Your task to perform on an android device: Go to notification settings Image 0: 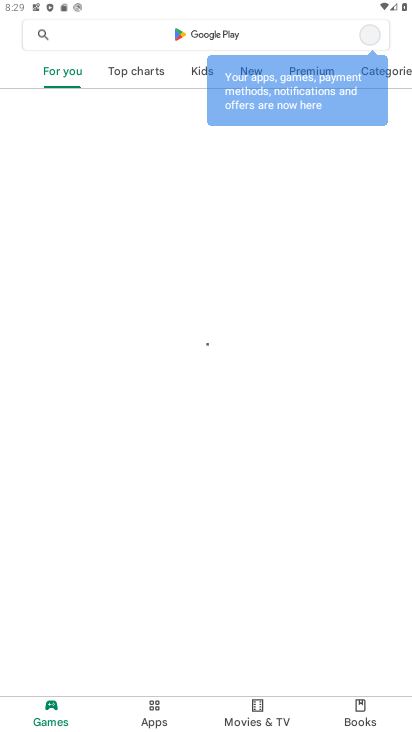
Step 0: press home button
Your task to perform on an android device: Go to notification settings Image 1: 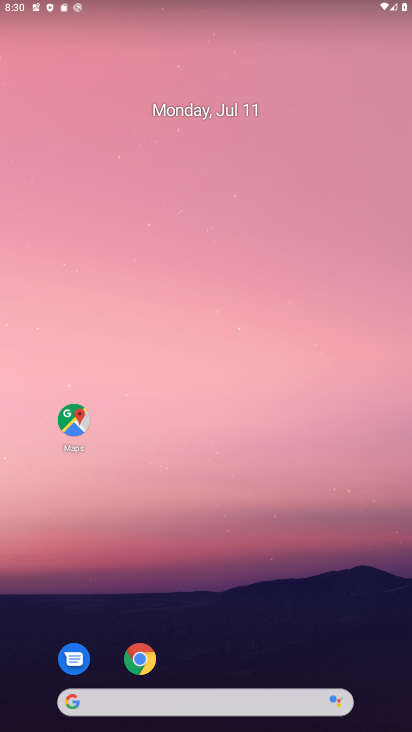
Step 1: drag from (222, 541) to (170, 145)
Your task to perform on an android device: Go to notification settings Image 2: 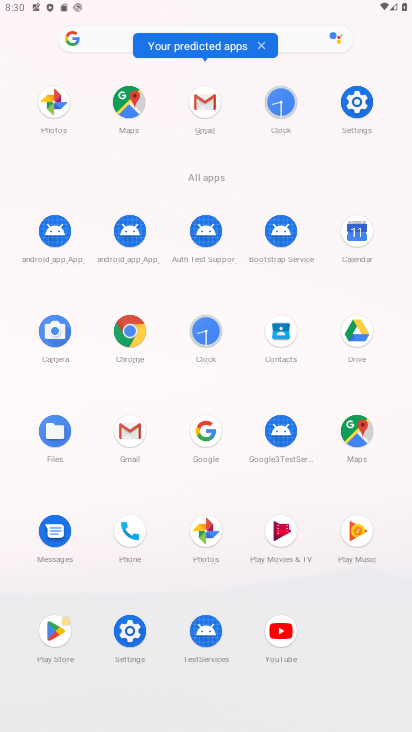
Step 2: click (358, 102)
Your task to perform on an android device: Go to notification settings Image 3: 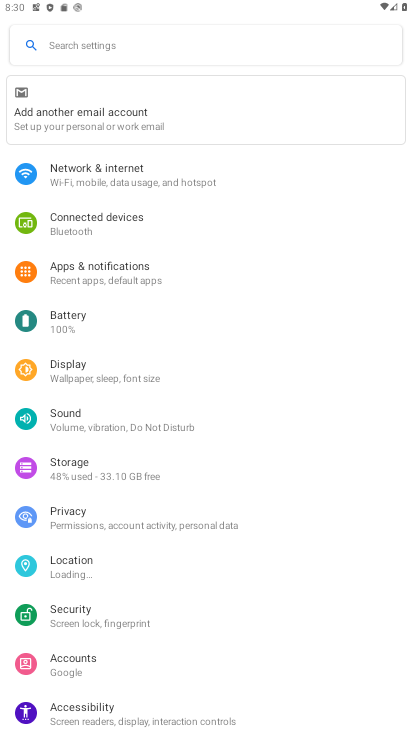
Step 3: click (122, 267)
Your task to perform on an android device: Go to notification settings Image 4: 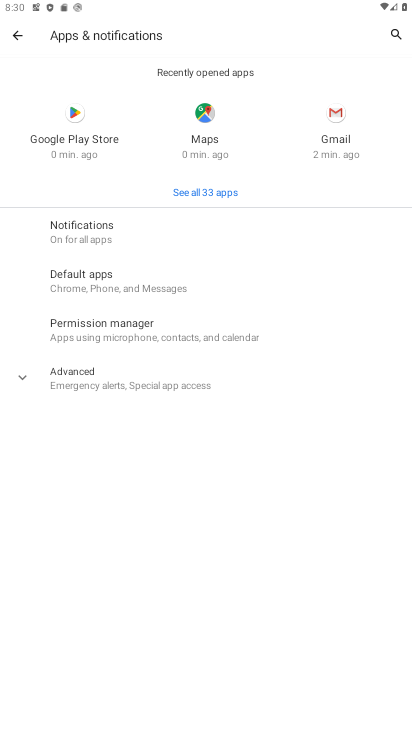
Step 4: click (85, 221)
Your task to perform on an android device: Go to notification settings Image 5: 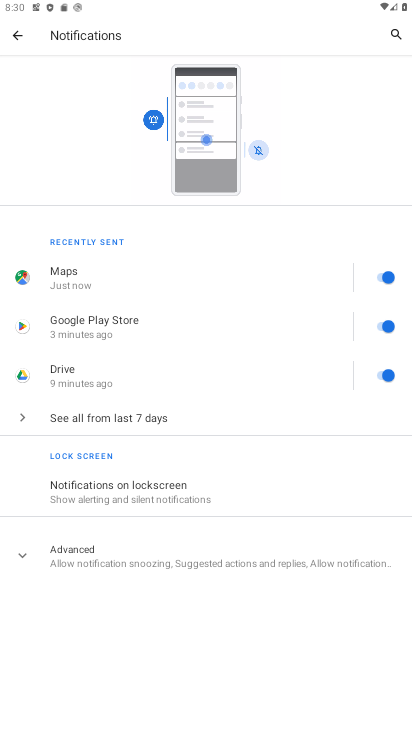
Step 5: task complete